Your task to perform on an android device: Show the shopping cart on amazon.com. Add bose soundsport free to the cart on amazon.com, then select checkout. Image 0: 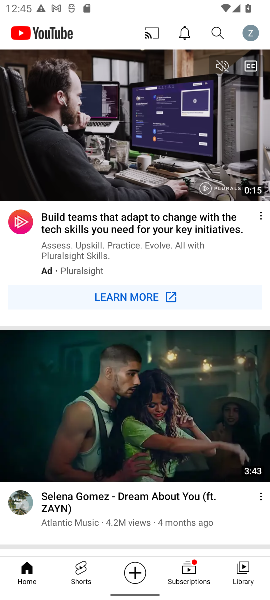
Step 0: press home button
Your task to perform on an android device: Show the shopping cart on amazon.com. Add bose soundsport free to the cart on amazon.com, then select checkout. Image 1: 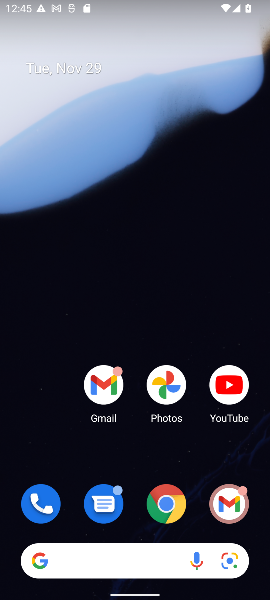
Step 1: click (169, 503)
Your task to perform on an android device: Show the shopping cart on amazon.com. Add bose soundsport free to the cart on amazon.com, then select checkout. Image 2: 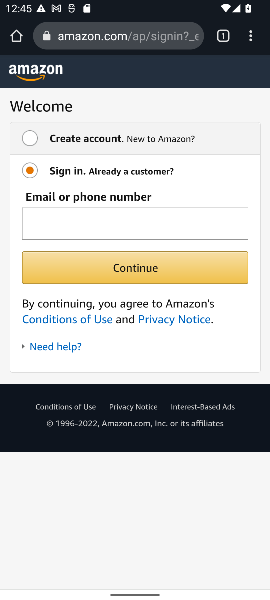
Step 2: press back button
Your task to perform on an android device: Show the shopping cart on amazon.com. Add bose soundsport free to the cart on amazon.com, then select checkout. Image 3: 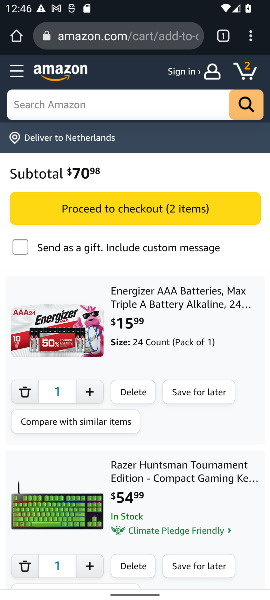
Step 3: click (85, 105)
Your task to perform on an android device: Show the shopping cart on amazon.com. Add bose soundsport free to the cart on amazon.com, then select checkout. Image 4: 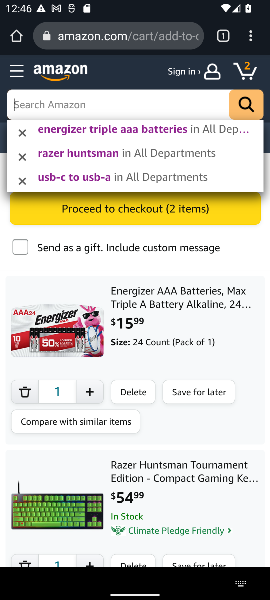
Step 4: click (55, 103)
Your task to perform on an android device: Show the shopping cart on amazon.com. Add bose soundsport free to the cart on amazon.com, then select checkout. Image 5: 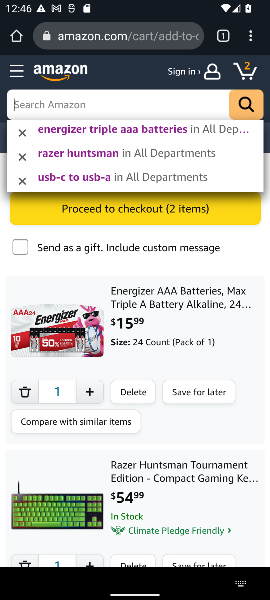
Step 5: type "bose soundsport free"
Your task to perform on an android device: Show the shopping cart on amazon.com. Add bose soundsport free to the cart on amazon.com, then select checkout. Image 6: 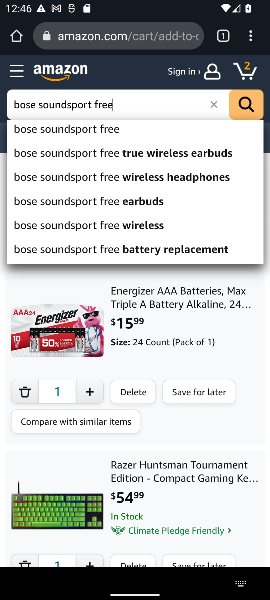
Step 6: click (74, 130)
Your task to perform on an android device: Show the shopping cart on amazon.com. Add bose soundsport free to the cart on amazon.com, then select checkout. Image 7: 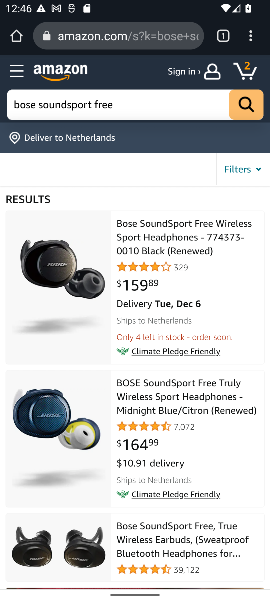
Step 7: click (140, 250)
Your task to perform on an android device: Show the shopping cart on amazon.com. Add bose soundsport free to the cart on amazon.com, then select checkout. Image 8: 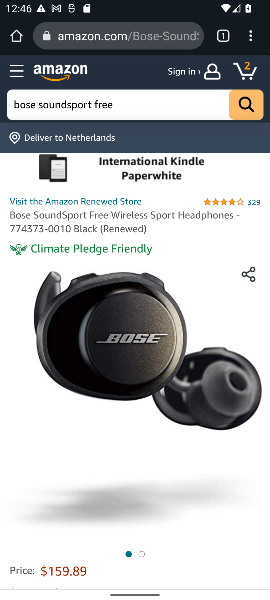
Step 8: drag from (149, 384) to (138, 204)
Your task to perform on an android device: Show the shopping cart on amazon.com. Add bose soundsport free to the cart on amazon.com, then select checkout. Image 9: 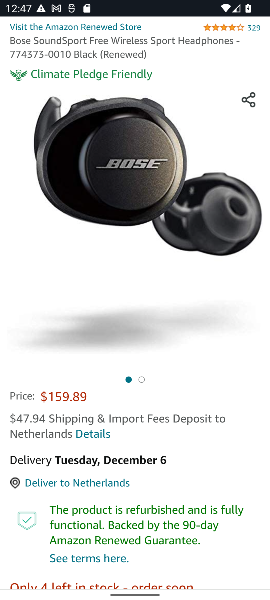
Step 9: drag from (129, 448) to (95, 137)
Your task to perform on an android device: Show the shopping cart on amazon.com. Add bose soundsport free to the cart on amazon.com, then select checkout. Image 10: 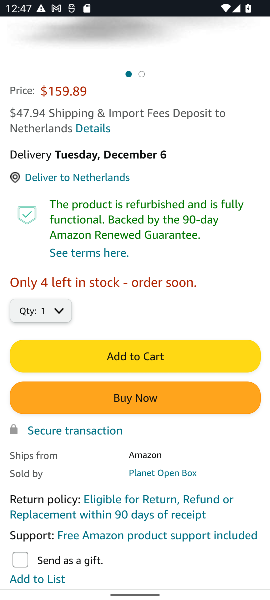
Step 10: click (110, 349)
Your task to perform on an android device: Show the shopping cart on amazon.com. Add bose soundsport free to the cart on amazon.com, then select checkout. Image 11: 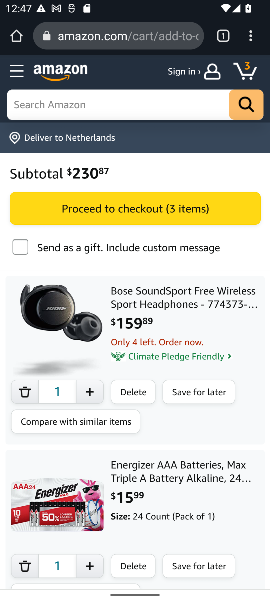
Step 11: click (128, 206)
Your task to perform on an android device: Show the shopping cart on amazon.com. Add bose soundsport free to the cart on amazon.com, then select checkout. Image 12: 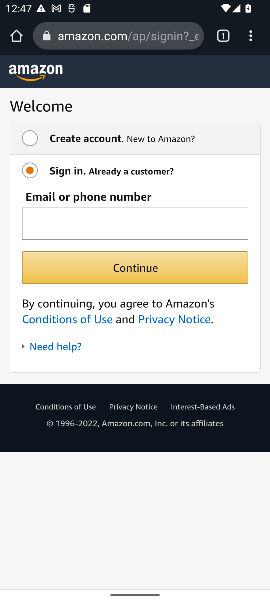
Step 12: task complete